Your task to perform on an android device: See recent photos Image 0: 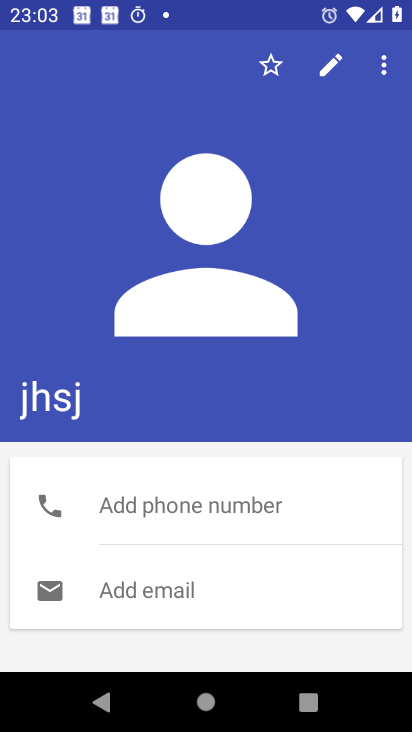
Step 0: press home button
Your task to perform on an android device: See recent photos Image 1: 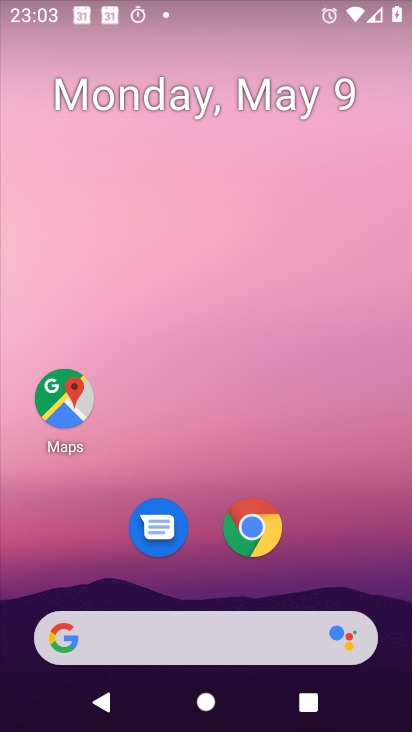
Step 1: drag from (224, 572) to (219, 63)
Your task to perform on an android device: See recent photos Image 2: 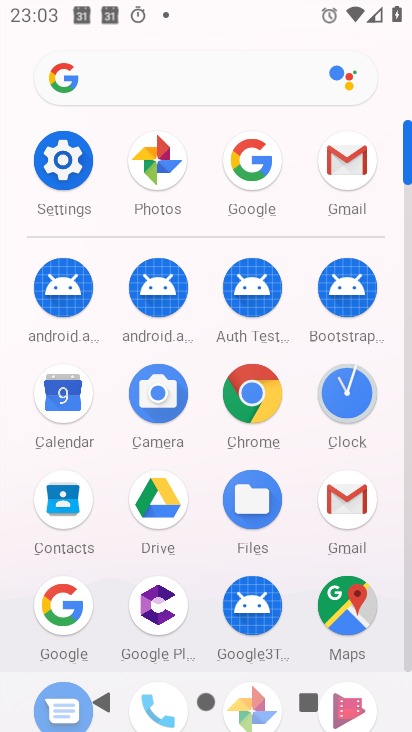
Step 2: click (162, 153)
Your task to perform on an android device: See recent photos Image 3: 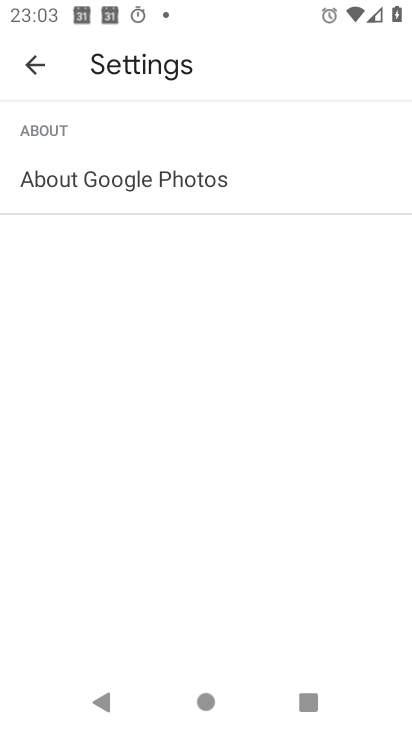
Step 3: press back button
Your task to perform on an android device: See recent photos Image 4: 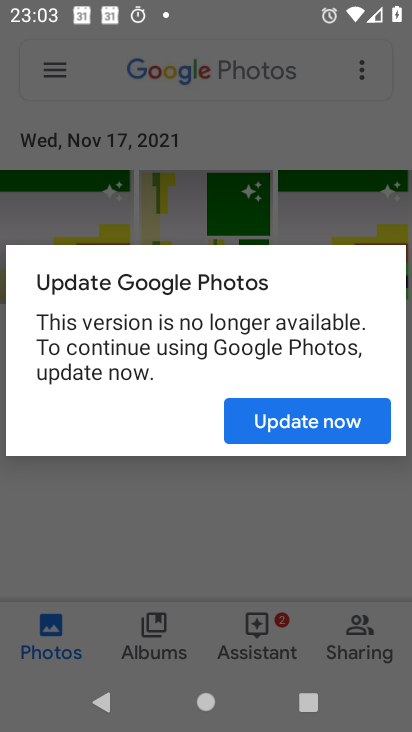
Step 4: click (285, 434)
Your task to perform on an android device: See recent photos Image 5: 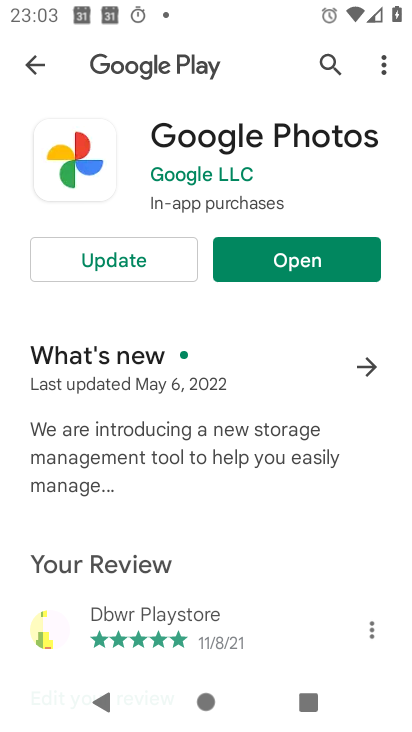
Step 5: click (302, 259)
Your task to perform on an android device: See recent photos Image 6: 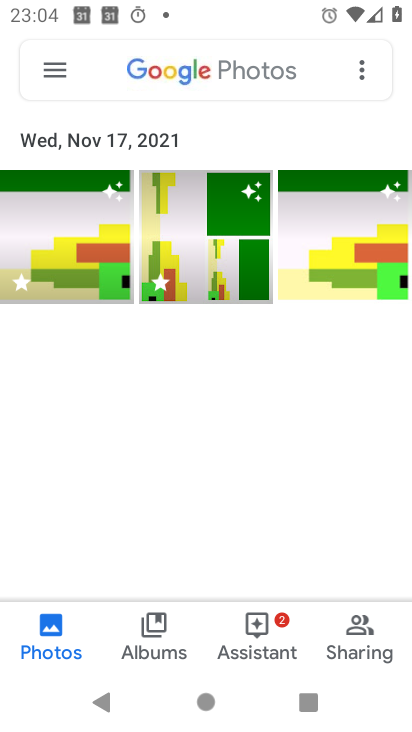
Step 6: task complete